Your task to perform on an android device: see sites visited before in the chrome app Image 0: 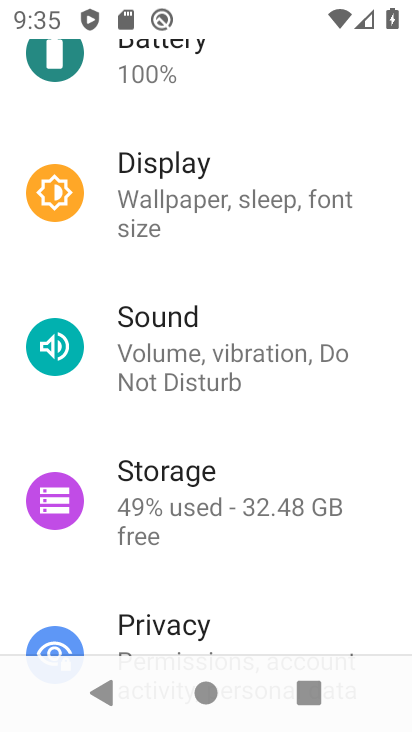
Step 0: press home button
Your task to perform on an android device: see sites visited before in the chrome app Image 1: 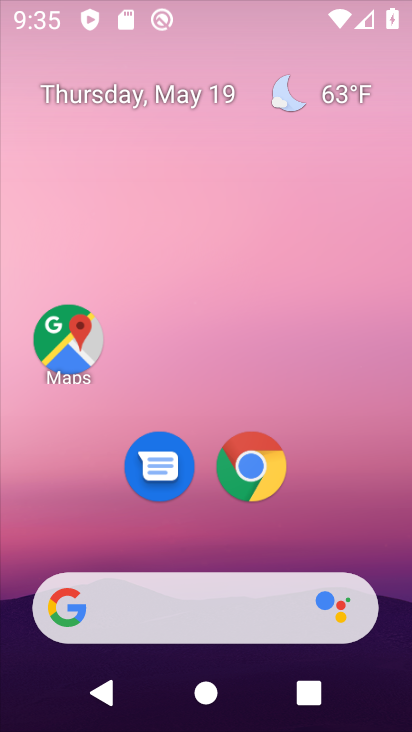
Step 1: drag from (394, 641) to (267, 26)
Your task to perform on an android device: see sites visited before in the chrome app Image 2: 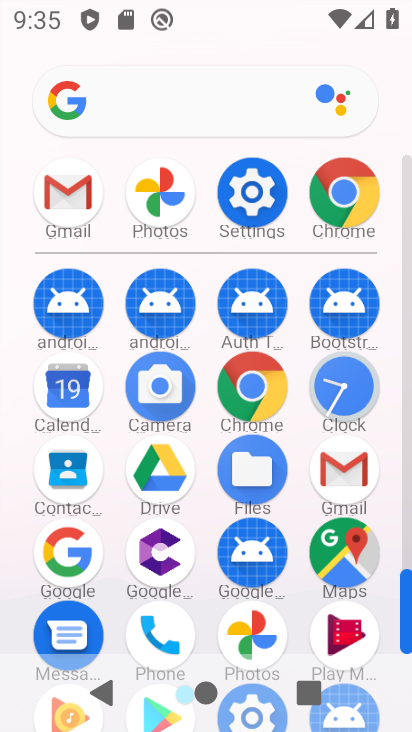
Step 2: click (331, 192)
Your task to perform on an android device: see sites visited before in the chrome app Image 3: 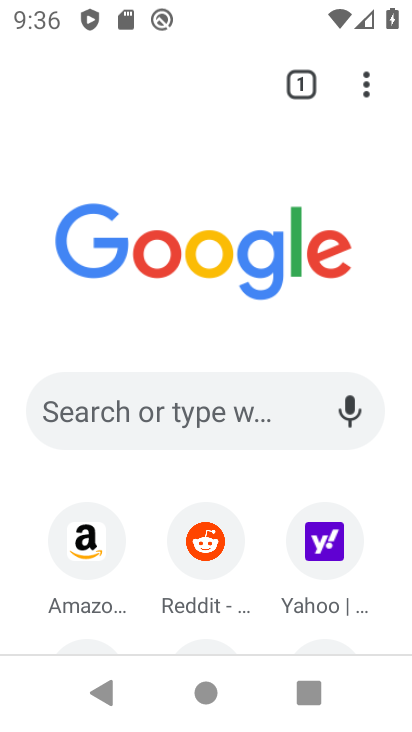
Step 3: click (371, 86)
Your task to perform on an android device: see sites visited before in the chrome app Image 4: 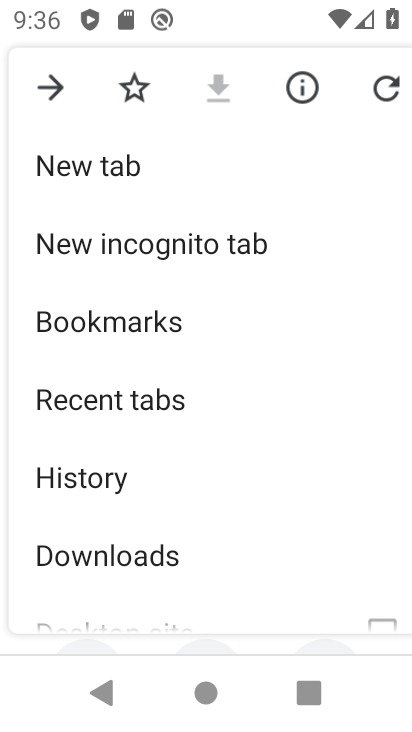
Step 4: click (127, 468)
Your task to perform on an android device: see sites visited before in the chrome app Image 5: 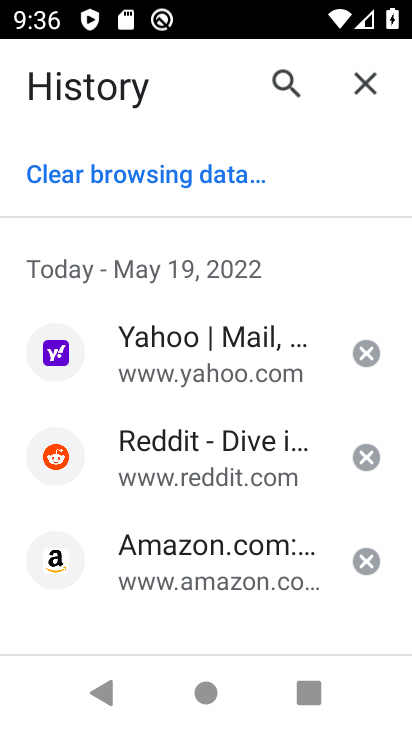
Step 5: click (120, 363)
Your task to perform on an android device: see sites visited before in the chrome app Image 6: 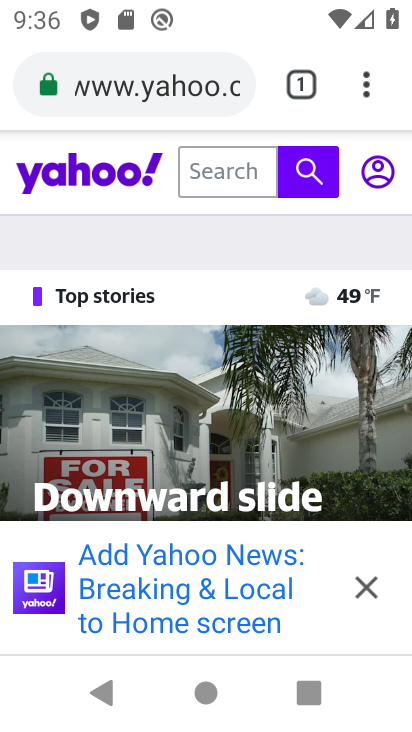
Step 6: task complete